Your task to perform on an android device: Open network settings Image 0: 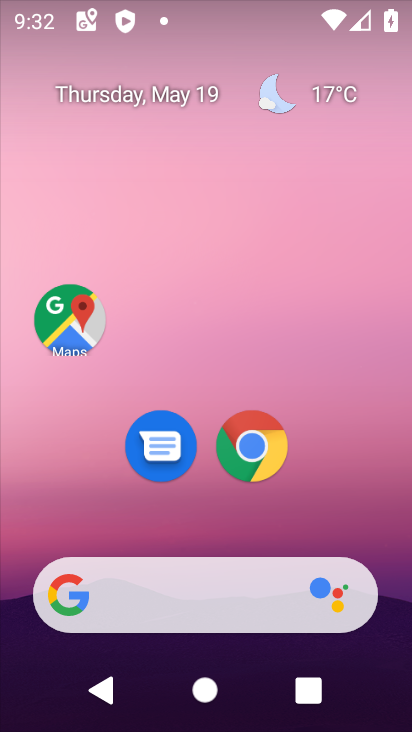
Step 0: drag from (210, 526) to (171, 36)
Your task to perform on an android device: Open network settings Image 1: 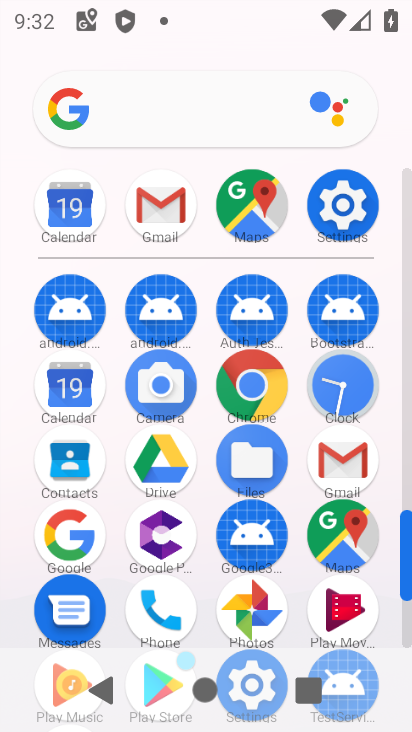
Step 1: click (359, 225)
Your task to perform on an android device: Open network settings Image 2: 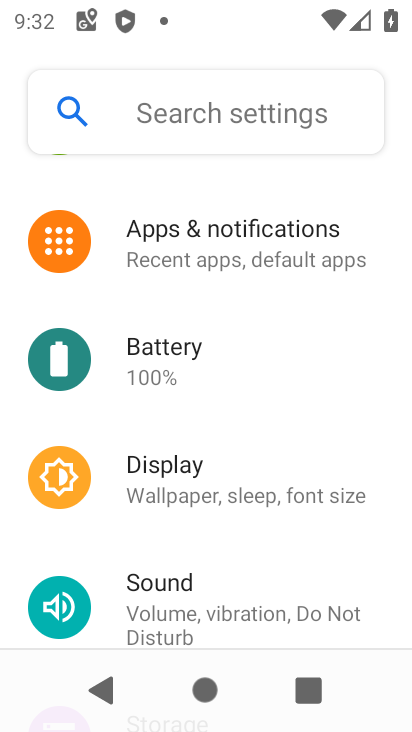
Step 2: drag from (264, 300) to (226, 629)
Your task to perform on an android device: Open network settings Image 3: 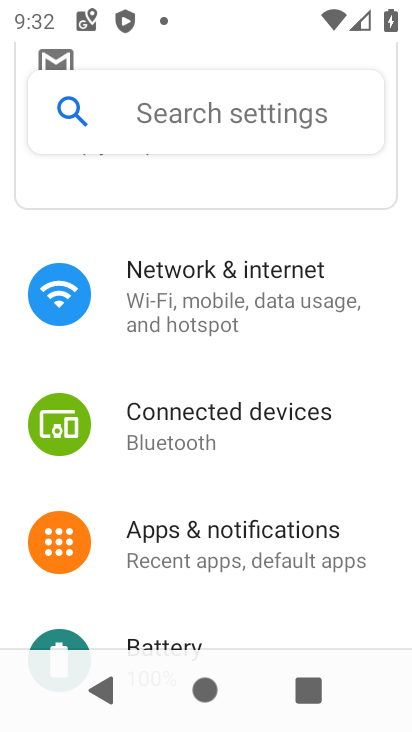
Step 3: click (223, 321)
Your task to perform on an android device: Open network settings Image 4: 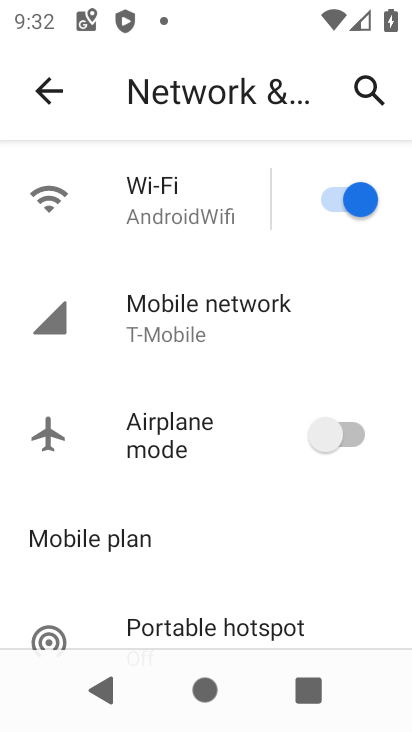
Step 4: task complete